Your task to perform on an android device: turn on improve location accuracy Image 0: 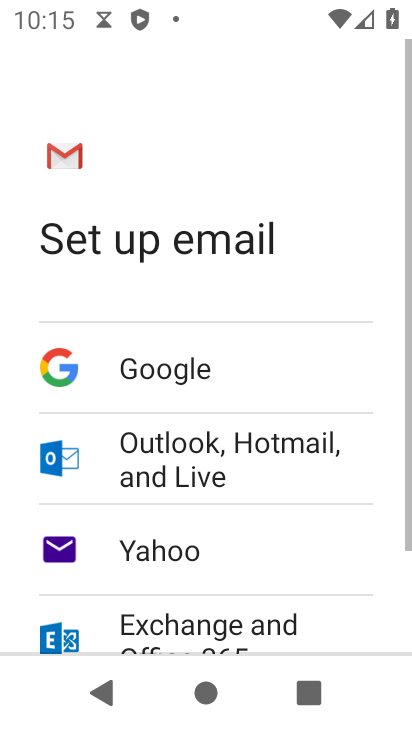
Step 0: press home button
Your task to perform on an android device: turn on improve location accuracy Image 1: 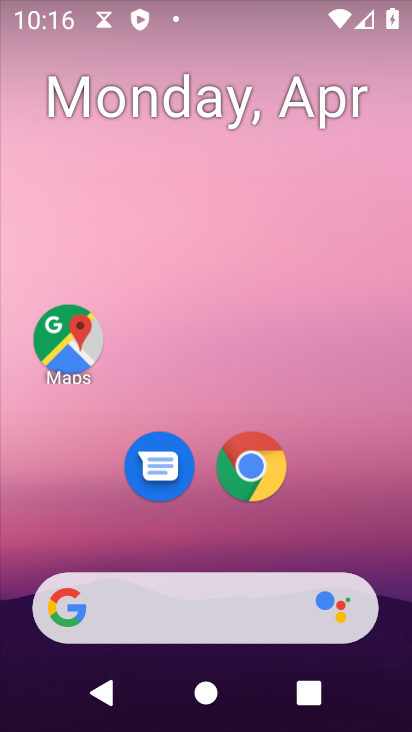
Step 1: drag from (219, 552) to (252, 77)
Your task to perform on an android device: turn on improve location accuracy Image 2: 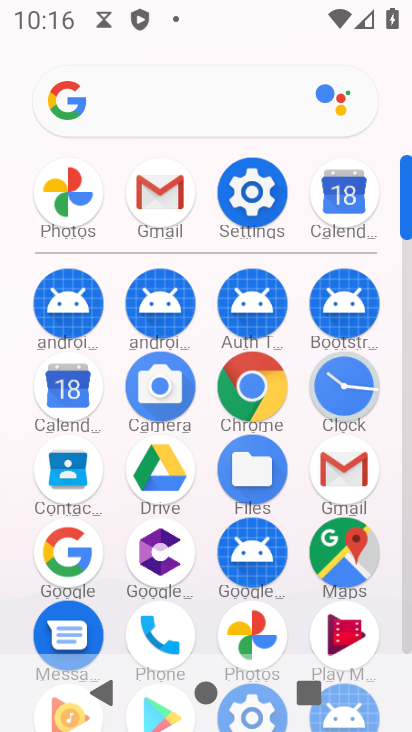
Step 2: click (250, 191)
Your task to perform on an android device: turn on improve location accuracy Image 3: 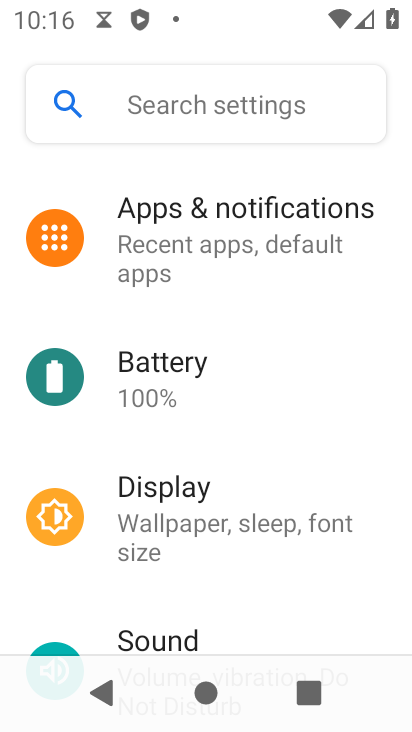
Step 3: drag from (235, 607) to (266, 401)
Your task to perform on an android device: turn on improve location accuracy Image 4: 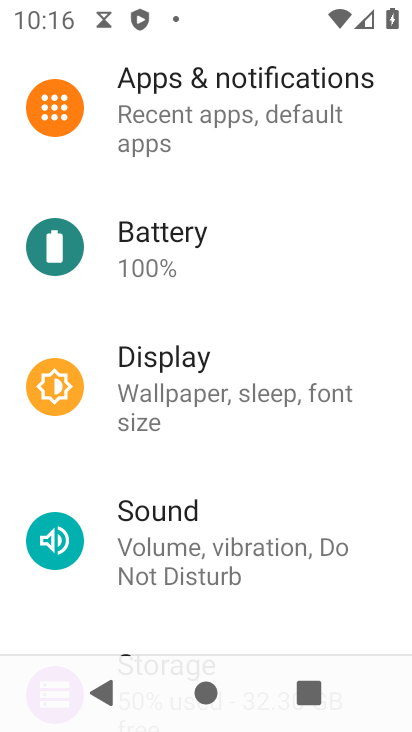
Step 4: drag from (229, 571) to (283, 365)
Your task to perform on an android device: turn on improve location accuracy Image 5: 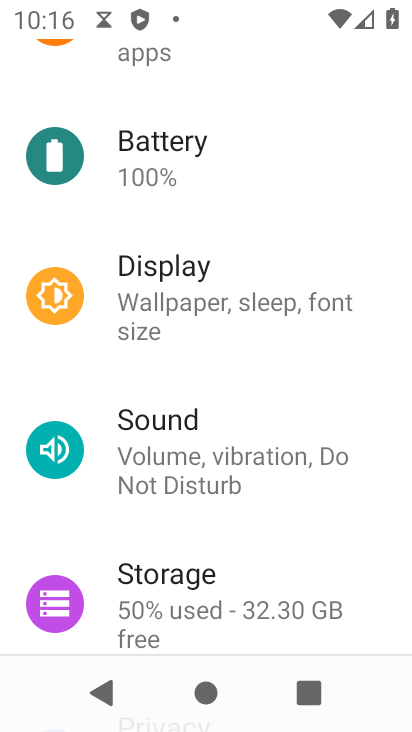
Step 5: drag from (263, 561) to (300, 374)
Your task to perform on an android device: turn on improve location accuracy Image 6: 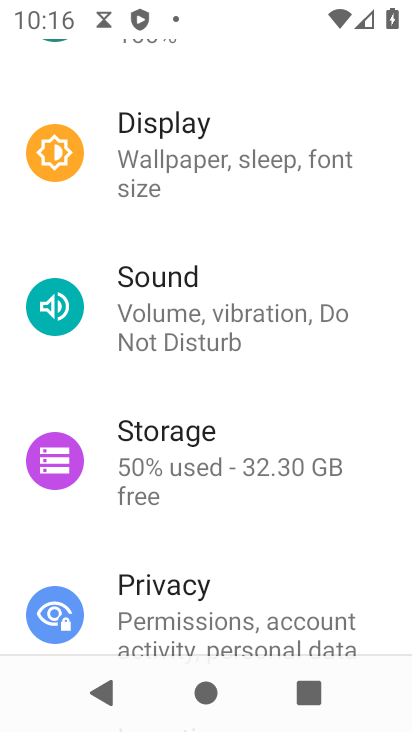
Step 6: drag from (245, 563) to (264, 398)
Your task to perform on an android device: turn on improve location accuracy Image 7: 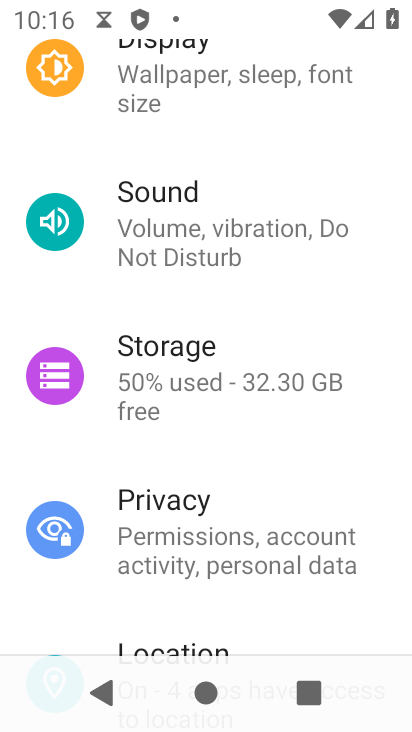
Step 7: drag from (222, 623) to (275, 394)
Your task to perform on an android device: turn on improve location accuracy Image 8: 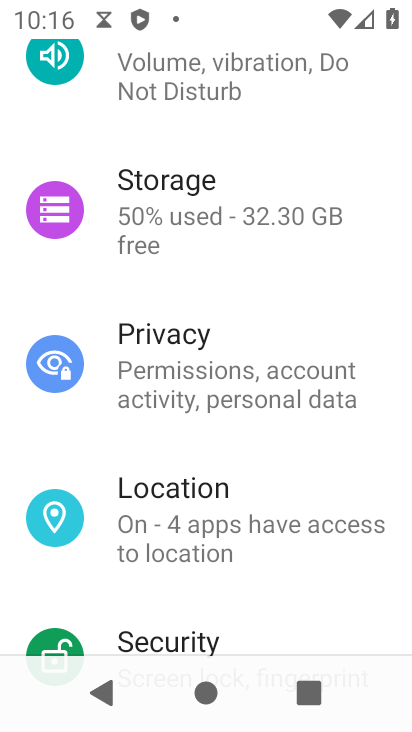
Step 8: click (244, 529)
Your task to perform on an android device: turn on improve location accuracy Image 9: 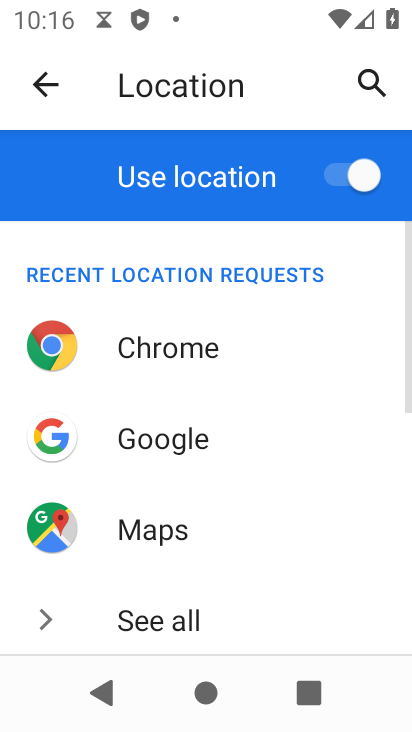
Step 9: drag from (244, 529) to (269, 355)
Your task to perform on an android device: turn on improve location accuracy Image 10: 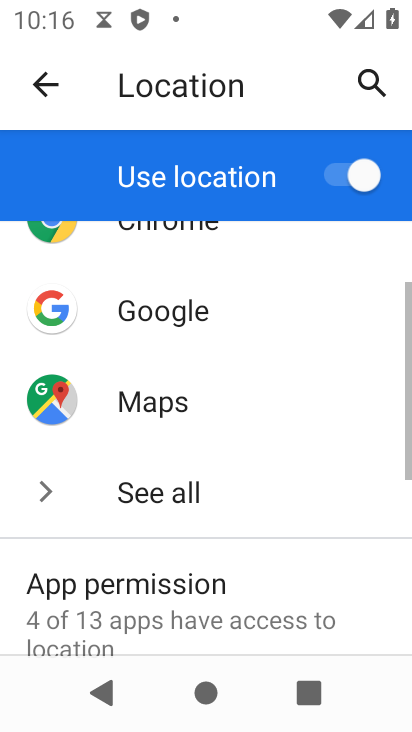
Step 10: drag from (239, 498) to (282, 353)
Your task to perform on an android device: turn on improve location accuracy Image 11: 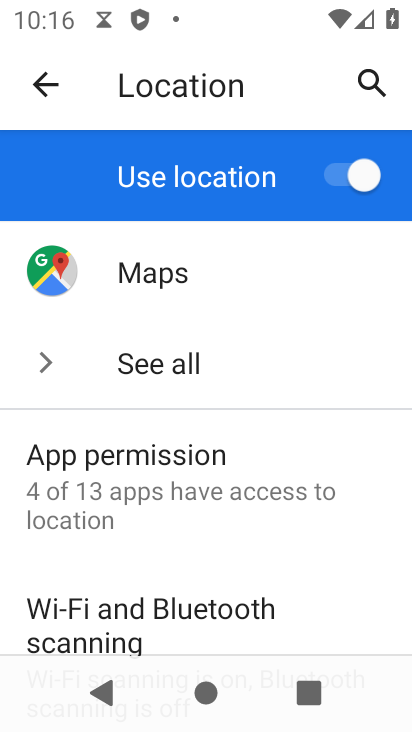
Step 11: drag from (226, 487) to (257, 396)
Your task to perform on an android device: turn on improve location accuracy Image 12: 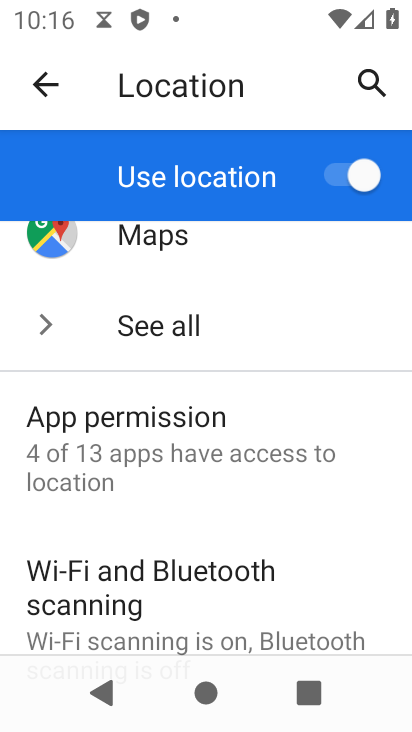
Step 12: drag from (221, 493) to (286, 367)
Your task to perform on an android device: turn on improve location accuracy Image 13: 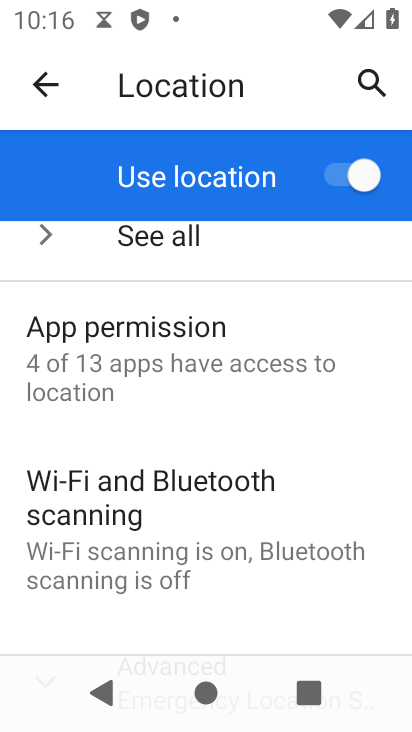
Step 13: drag from (254, 518) to (305, 380)
Your task to perform on an android device: turn on improve location accuracy Image 14: 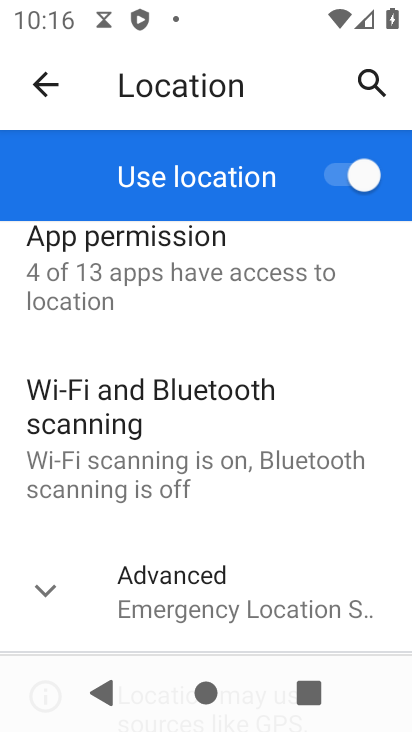
Step 14: drag from (245, 536) to (311, 398)
Your task to perform on an android device: turn on improve location accuracy Image 15: 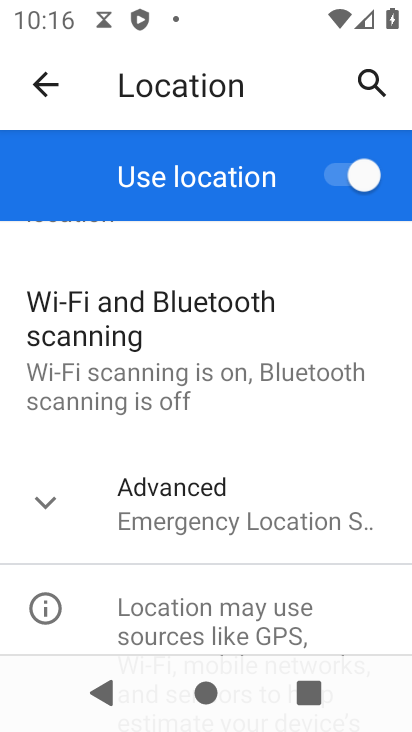
Step 15: click (223, 525)
Your task to perform on an android device: turn on improve location accuracy Image 16: 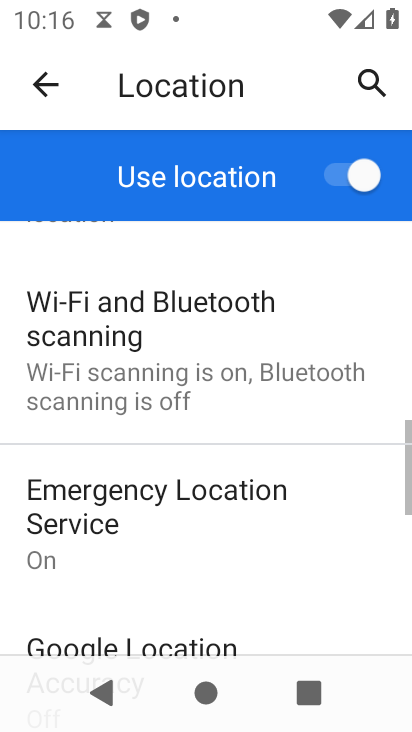
Step 16: drag from (228, 552) to (293, 419)
Your task to perform on an android device: turn on improve location accuracy Image 17: 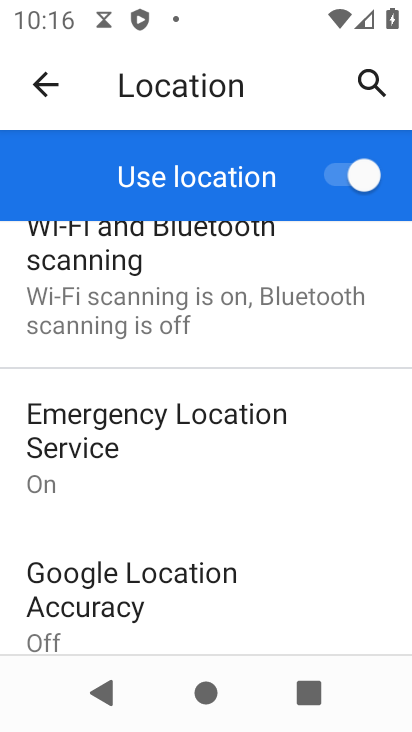
Step 17: drag from (240, 551) to (283, 425)
Your task to perform on an android device: turn on improve location accuracy Image 18: 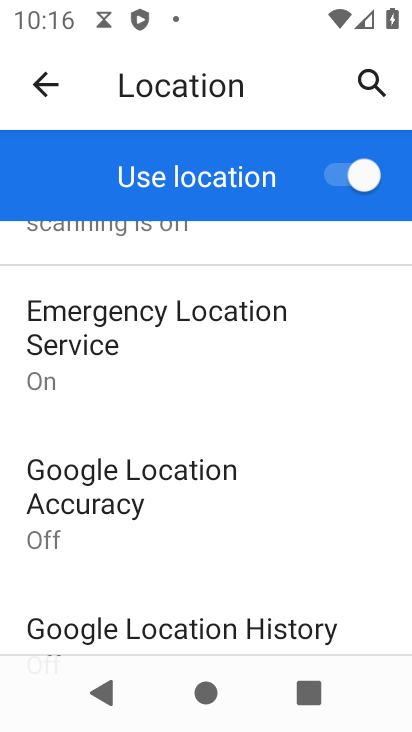
Step 18: drag from (245, 537) to (280, 450)
Your task to perform on an android device: turn on improve location accuracy Image 19: 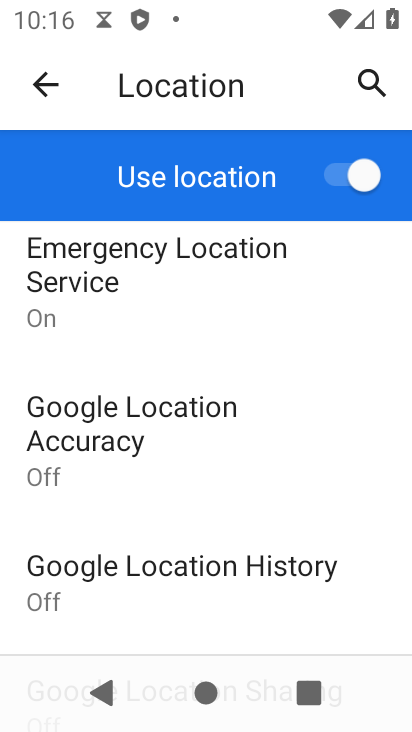
Step 19: click (198, 408)
Your task to perform on an android device: turn on improve location accuracy Image 20: 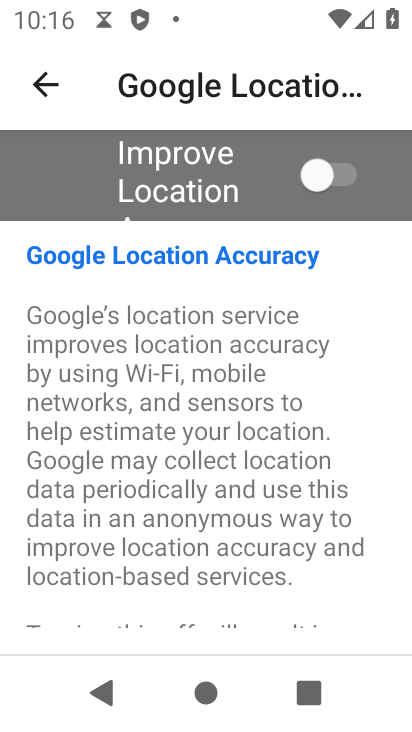
Step 20: click (333, 183)
Your task to perform on an android device: turn on improve location accuracy Image 21: 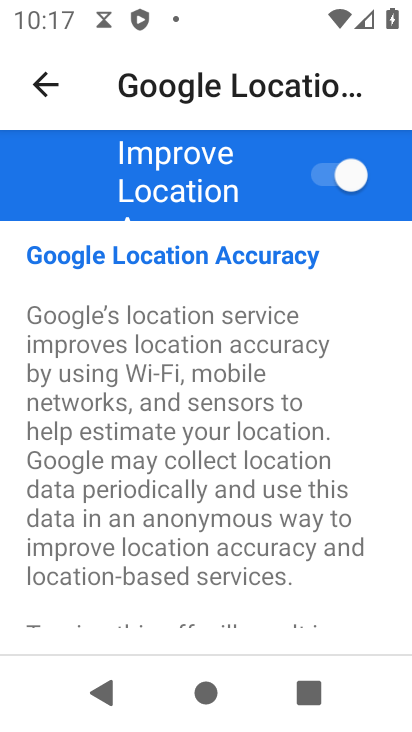
Step 21: task complete